Your task to perform on an android device: Open Maps and search for coffee Image 0: 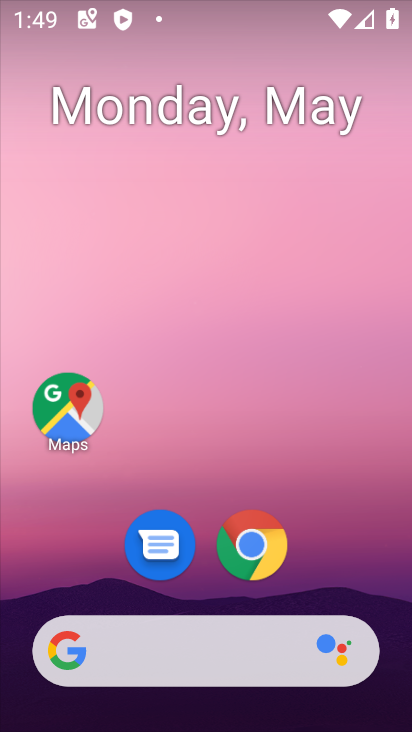
Step 0: click (66, 396)
Your task to perform on an android device: Open Maps and search for coffee Image 1: 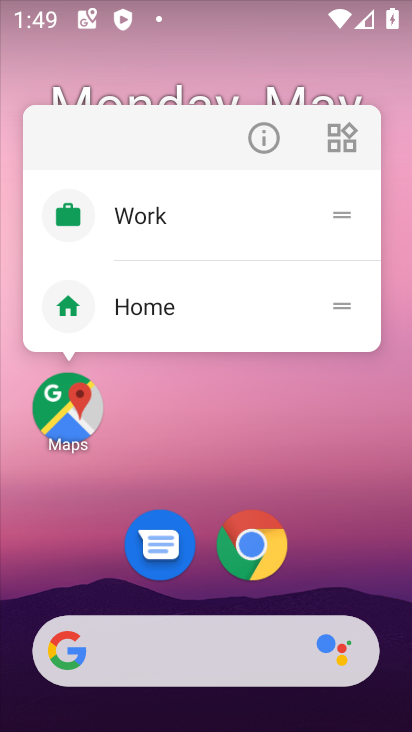
Step 1: click (71, 424)
Your task to perform on an android device: Open Maps and search for coffee Image 2: 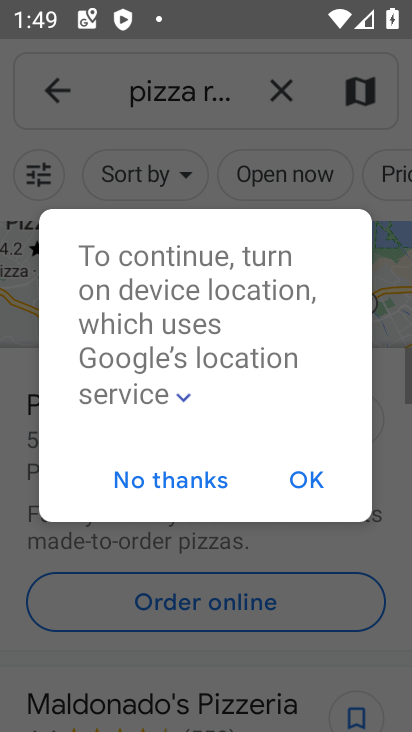
Step 2: click (281, 92)
Your task to perform on an android device: Open Maps and search for coffee Image 3: 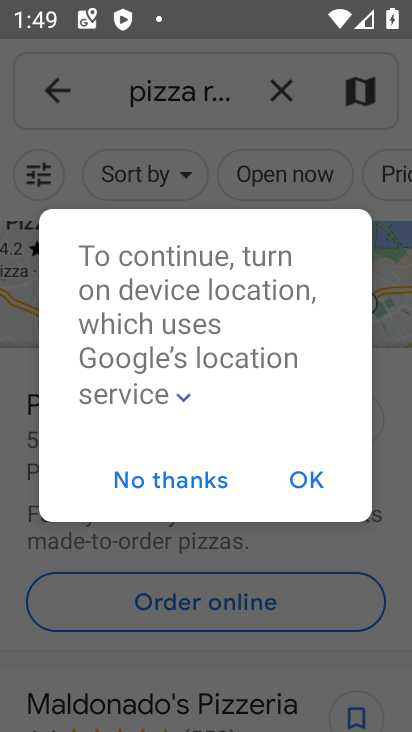
Step 3: click (296, 493)
Your task to perform on an android device: Open Maps and search for coffee Image 4: 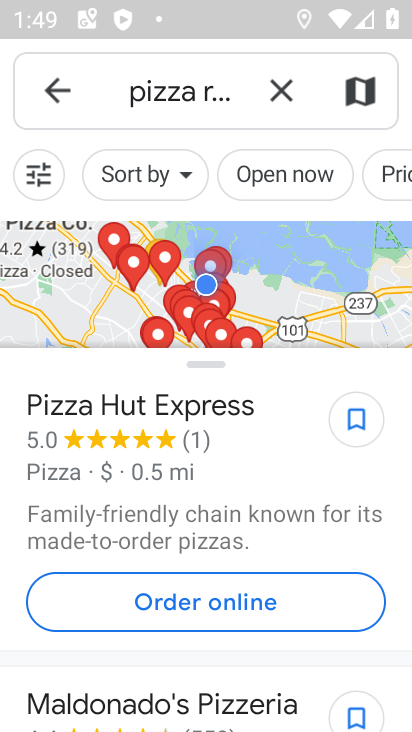
Step 4: click (281, 98)
Your task to perform on an android device: Open Maps and search for coffee Image 5: 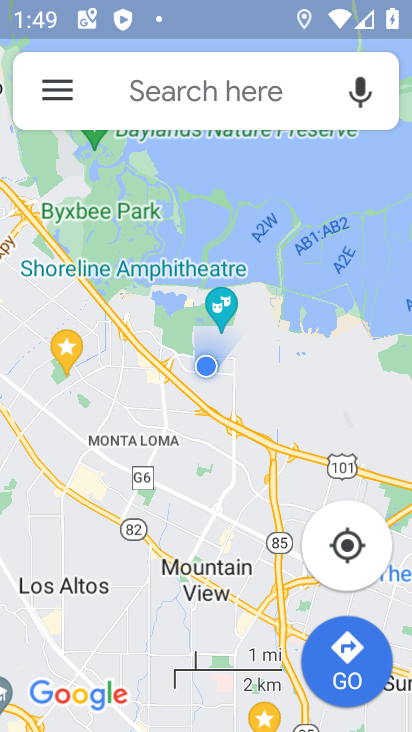
Step 5: click (287, 111)
Your task to perform on an android device: Open Maps and search for coffee Image 6: 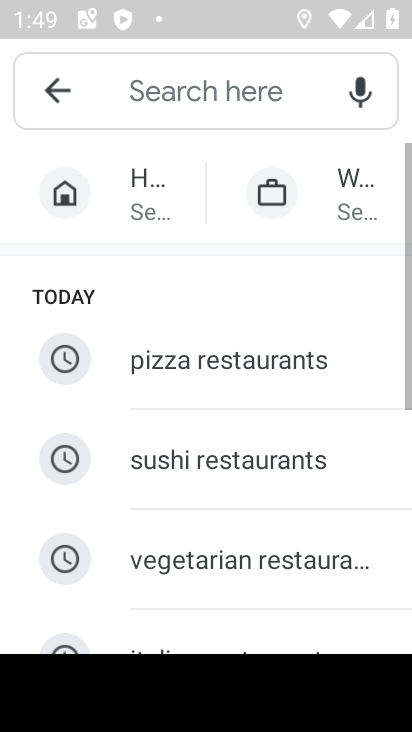
Step 6: drag from (223, 591) to (250, 276)
Your task to perform on an android device: Open Maps and search for coffee Image 7: 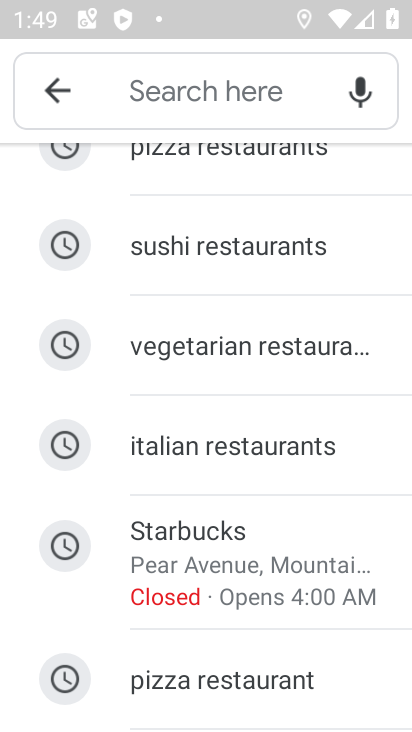
Step 7: drag from (240, 590) to (218, 176)
Your task to perform on an android device: Open Maps and search for coffee Image 8: 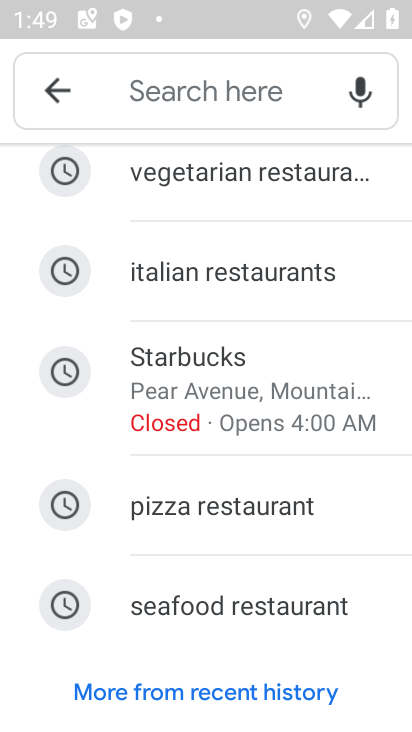
Step 8: drag from (293, 593) to (272, 167)
Your task to perform on an android device: Open Maps and search for coffee Image 9: 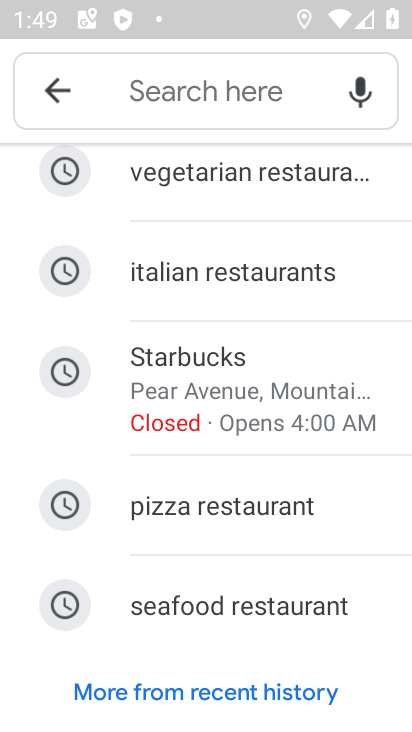
Step 9: drag from (299, 595) to (268, 186)
Your task to perform on an android device: Open Maps and search for coffee Image 10: 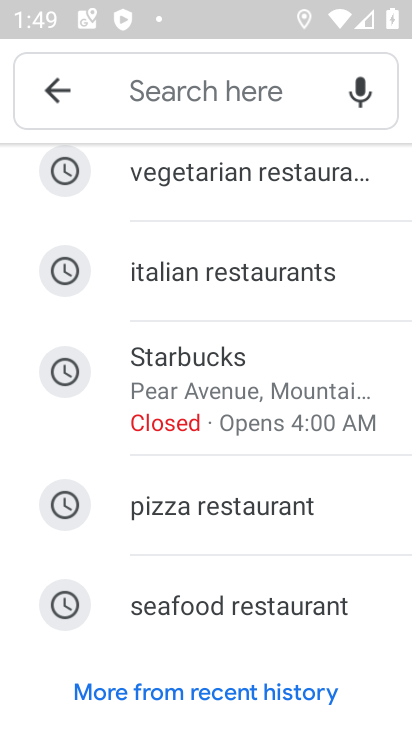
Step 10: drag from (247, 250) to (201, 517)
Your task to perform on an android device: Open Maps and search for coffee Image 11: 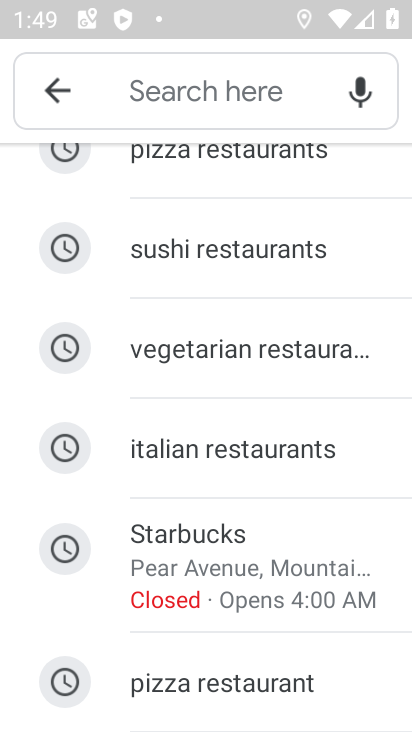
Step 11: click (229, 94)
Your task to perform on an android device: Open Maps and search for coffee Image 12: 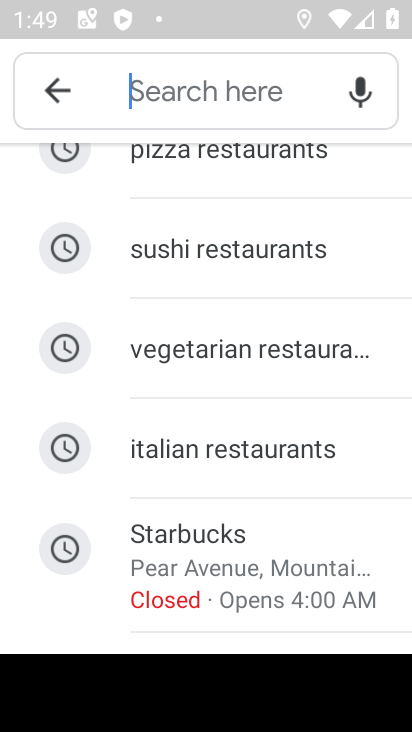
Step 12: type "coffee"
Your task to perform on an android device: Open Maps and search for coffee Image 13: 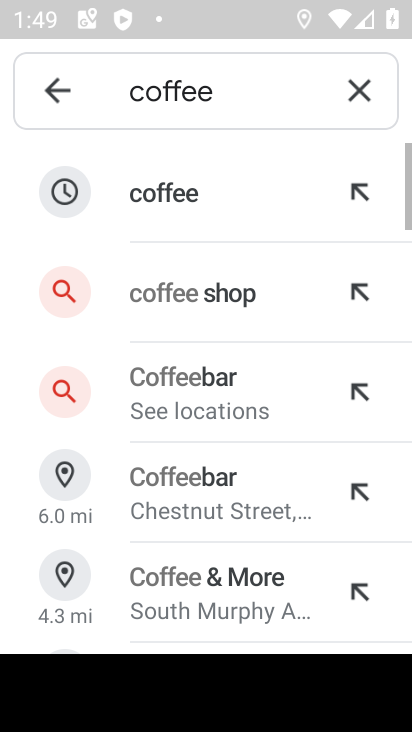
Step 13: click (220, 189)
Your task to perform on an android device: Open Maps and search for coffee Image 14: 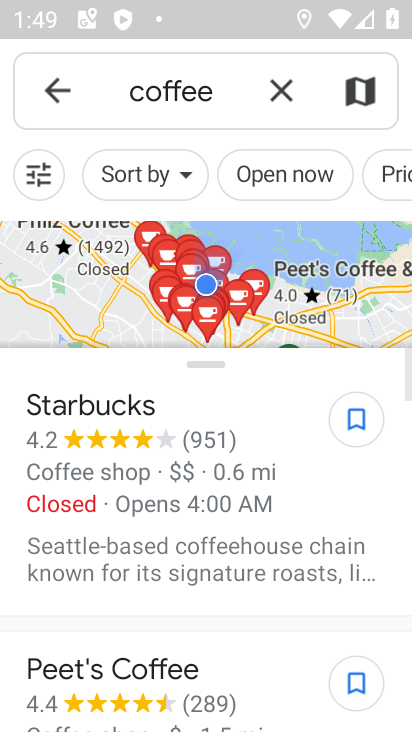
Step 14: task complete